Your task to perform on an android device: Open Google Chrome and click the shortcut for Amazon.com Image 0: 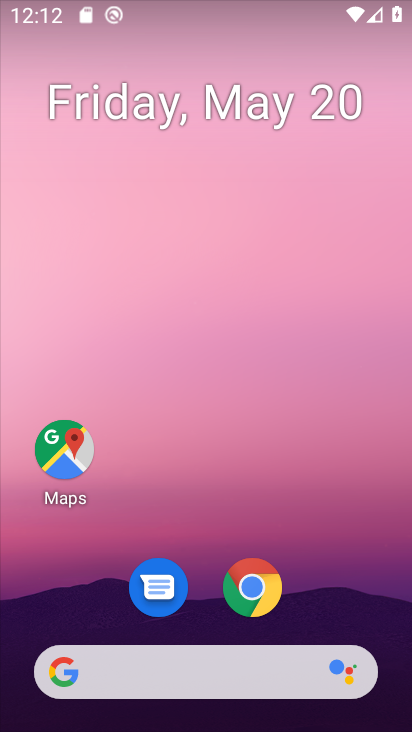
Step 0: drag from (356, 621) to (362, 232)
Your task to perform on an android device: Open Google Chrome and click the shortcut for Amazon.com Image 1: 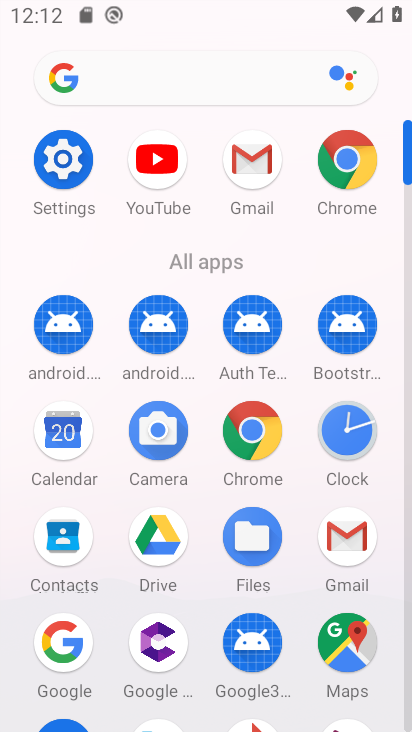
Step 1: click (260, 445)
Your task to perform on an android device: Open Google Chrome and click the shortcut for Amazon.com Image 2: 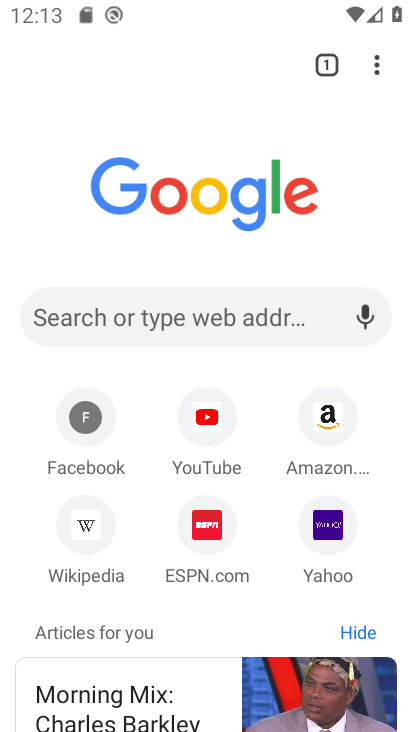
Step 2: click (330, 429)
Your task to perform on an android device: Open Google Chrome and click the shortcut for Amazon.com Image 3: 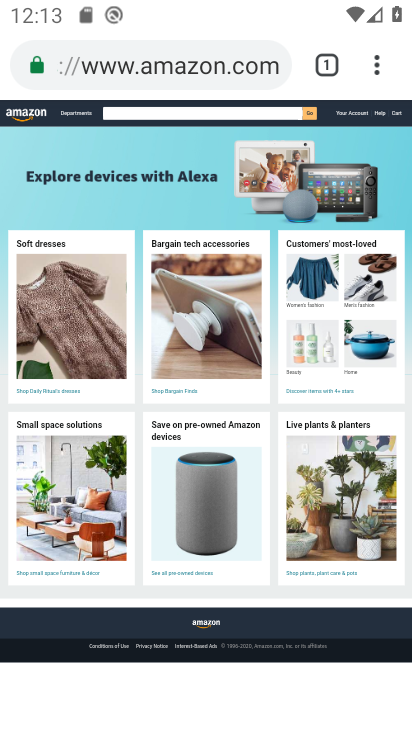
Step 3: task complete